Your task to perform on an android device: Go to privacy settings Image 0: 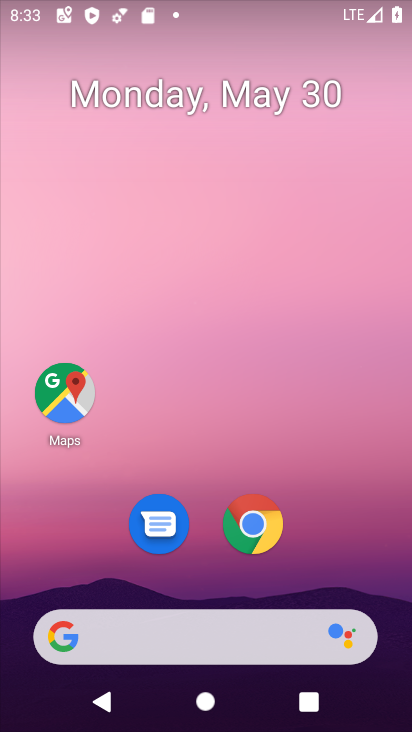
Step 0: drag from (200, 456) to (267, 4)
Your task to perform on an android device: Go to privacy settings Image 1: 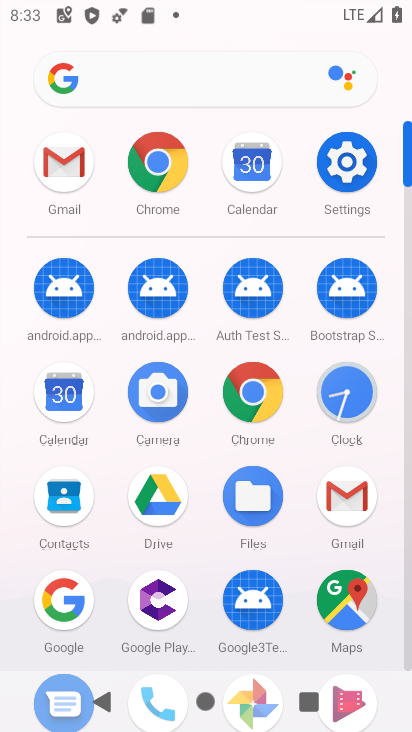
Step 1: click (350, 160)
Your task to perform on an android device: Go to privacy settings Image 2: 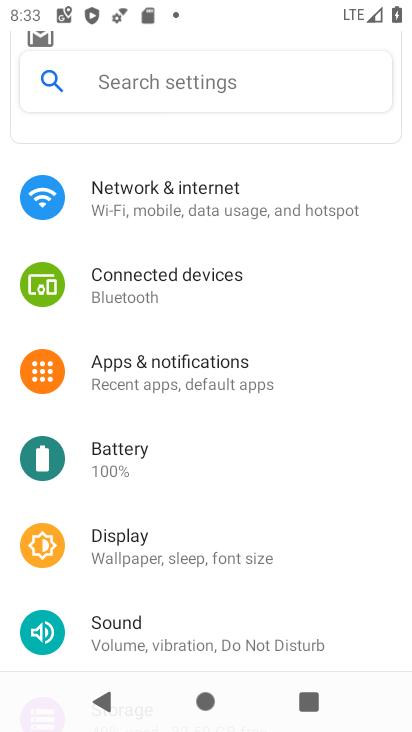
Step 2: drag from (244, 620) to (334, 0)
Your task to perform on an android device: Go to privacy settings Image 3: 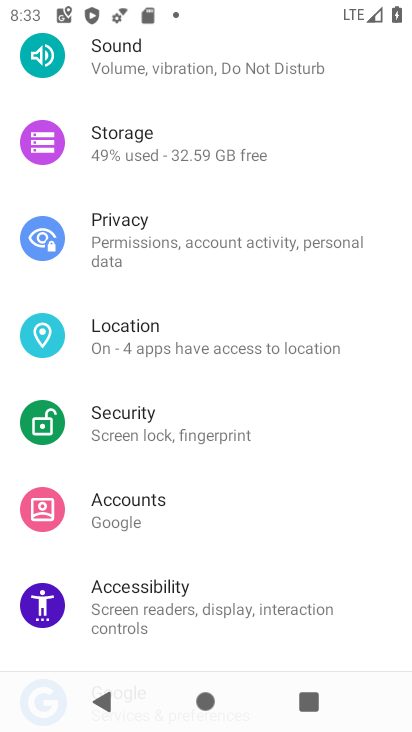
Step 3: click (211, 246)
Your task to perform on an android device: Go to privacy settings Image 4: 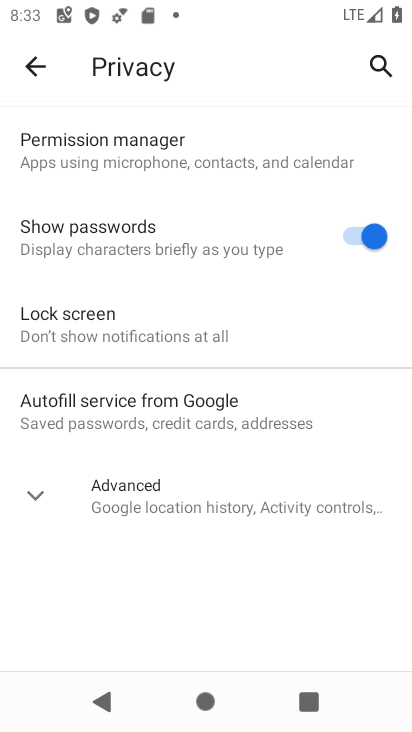
Step 4: task complete